Your task to perform on an android device: toggle improve location accuracy Image 0: 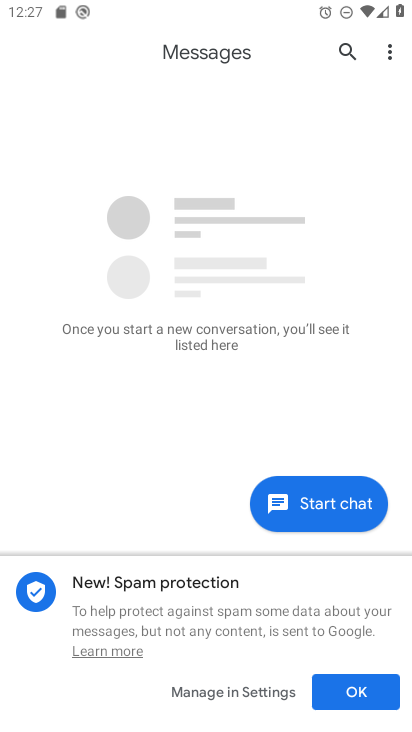
Step 0: press home button
Your task to perform on an android device: toggle improve location accuracy Image 1: 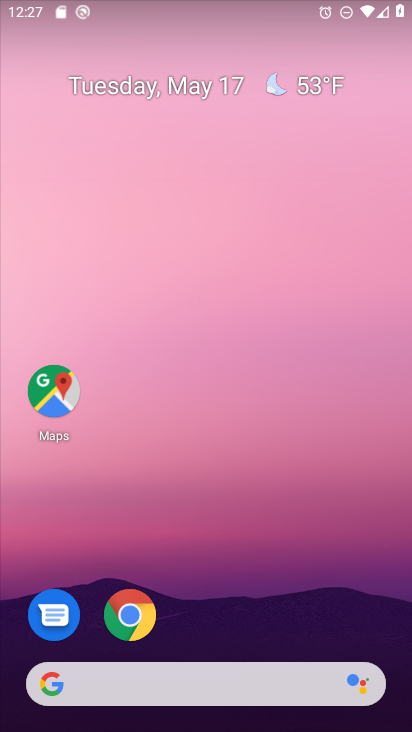
Step 1: drag from (149, 654) to (190, 314)
Your task to perform on an android device: toggle improve location accuracy Image 2: 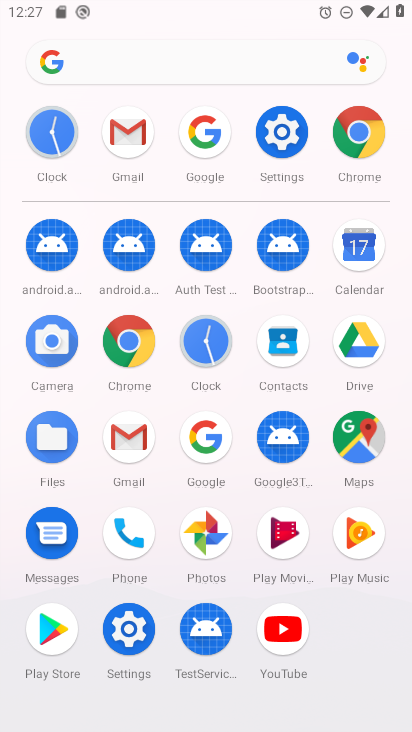
Step 2: click (278, 131)
Your task to perform on an android device: toggle improve location accuracy Image 3: 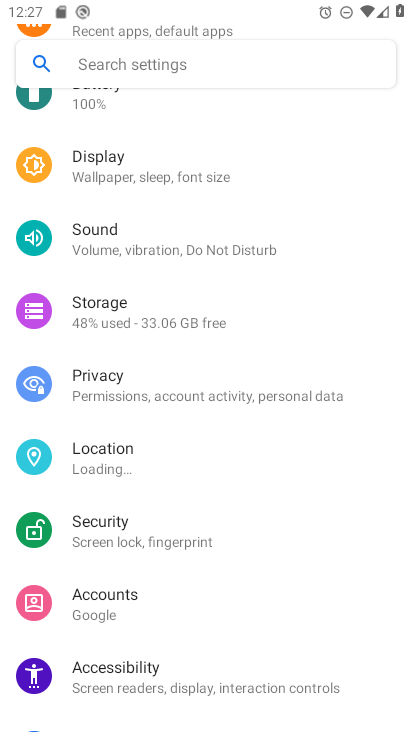
Step 3: click (107, 474)
Your task to perform on an android device: toggle improve location accuracy Image 4: 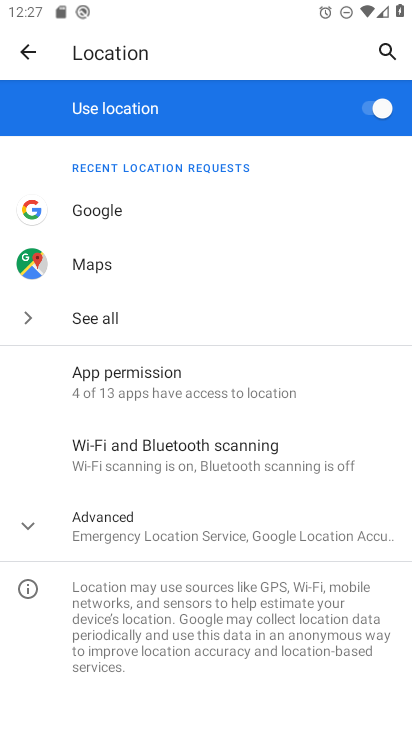
Step 4: click (130, 533)
Your task to perform on an android device: toggle improve location accuracy Image 5: 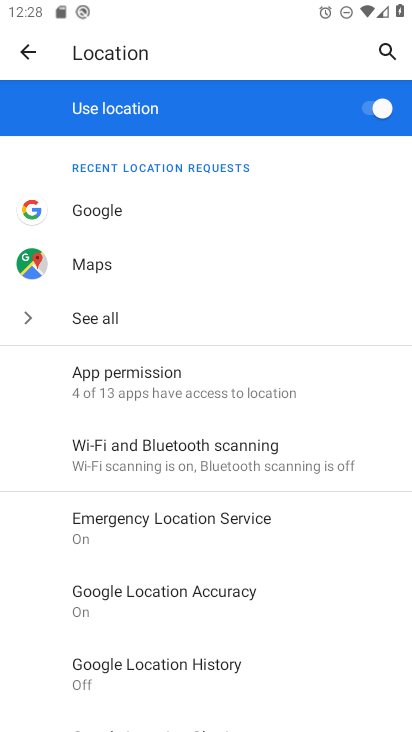
Step 5: click (144, 591)
Your task to perform on an android device: toggle improve location accuracy Image 6: 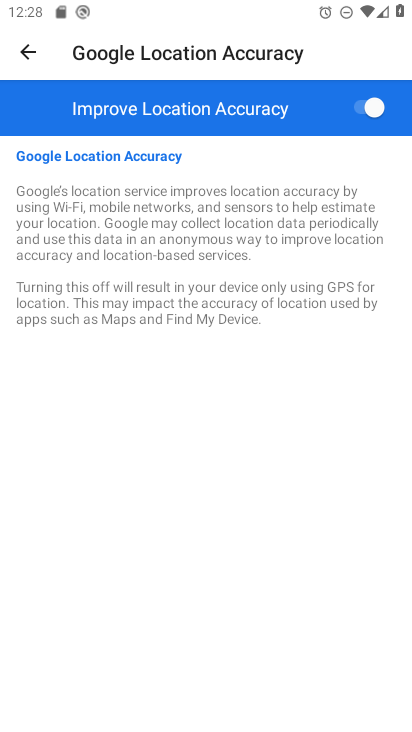
Step 6: click (357, 107)
Your task to perform on an android device: toggle improve location accuracy Image 7: 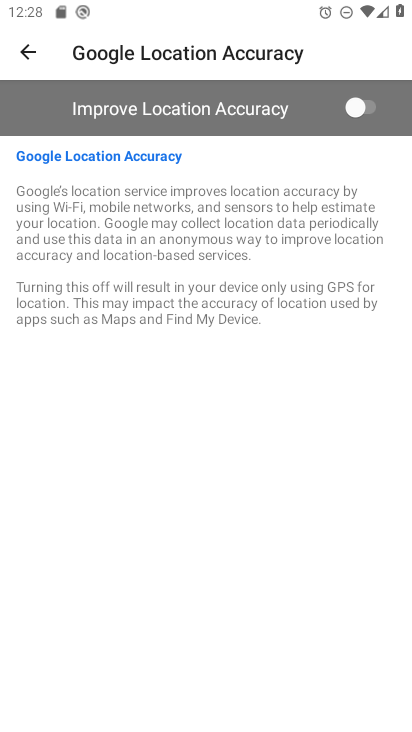
Step 7: task complete